Your task to perform on an android device: Search for amazon basics triple a on ebay, select the first entry, add it to the cart, then select checkout. Image 0: 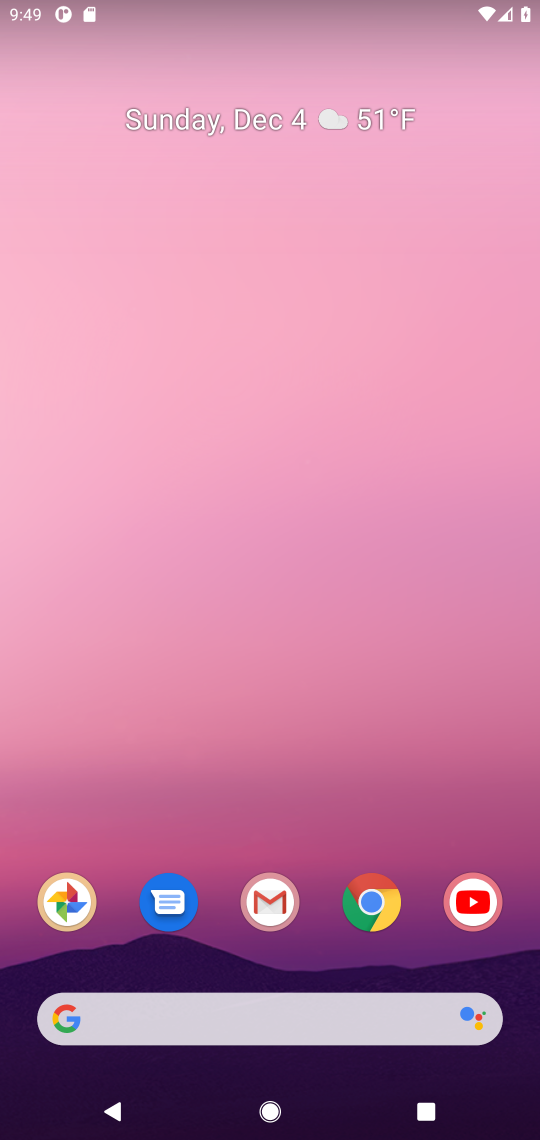
Step 0: click (368, 913)
Your task to perform on an android device: Search for amazon basics triple a on ebay, select the first entry, add it to the cart, then select checkout. Image 1: 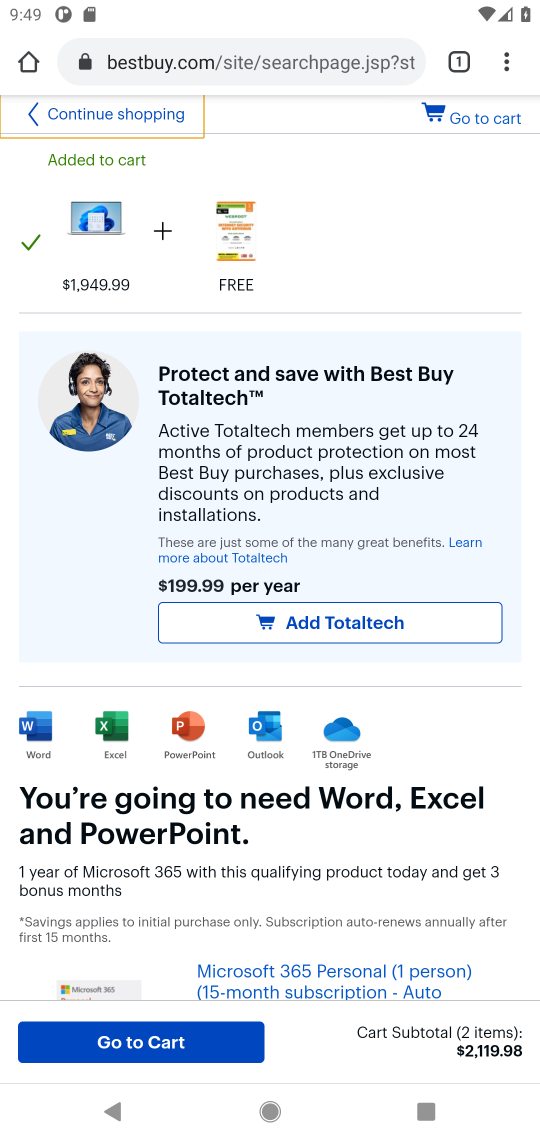
Step 1: click (191, 70)
Your task to perform on an android device: Search for amazon basics triple a on ebay, select the first entry, add it to the cart, then select checkout. Image 2: 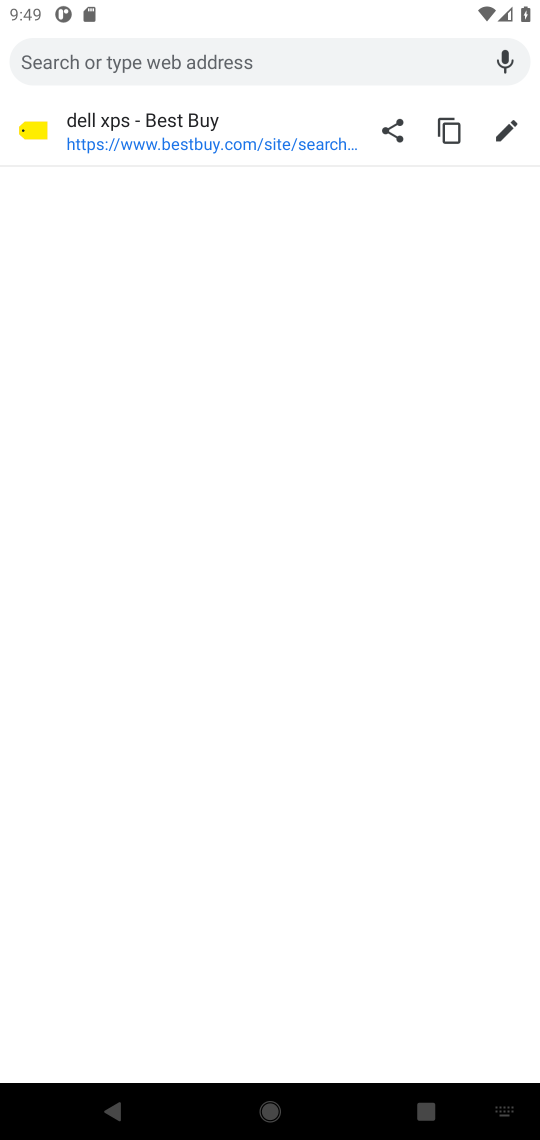
Step 2: type "ebay"
Your task to perform on an android device: Search for amazon basics triple a on ebay, select the first entry, add it to the cart, then select checkout. Image 3: 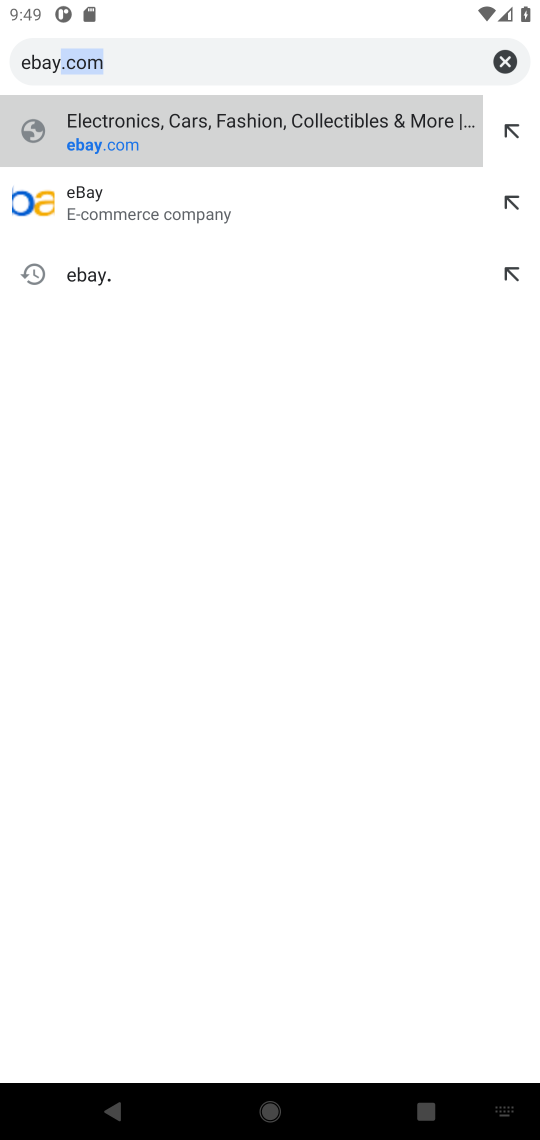
Step 3: click (127, 121)
Your task to perform on an android device: Search for amazon basics triple a on ebay, select the first entry, add it to the cart, then select checkout. Image 4: 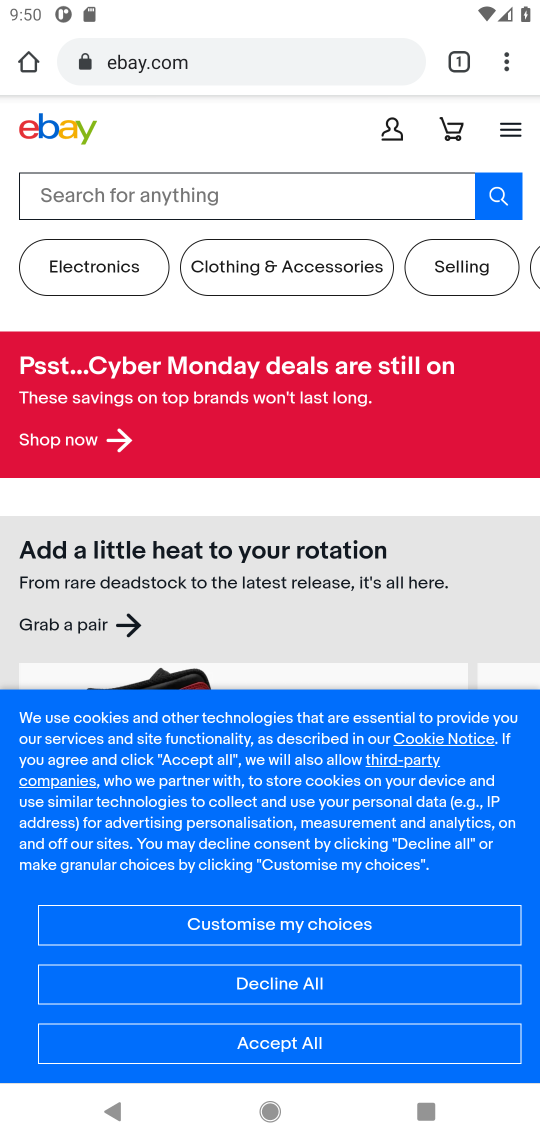
Step 4: click (217, 193)
Your task to perform on an android device: Search for amazon basics triple a on ebay, select the first entry, add it to the cart, then select checkout. Image 5: 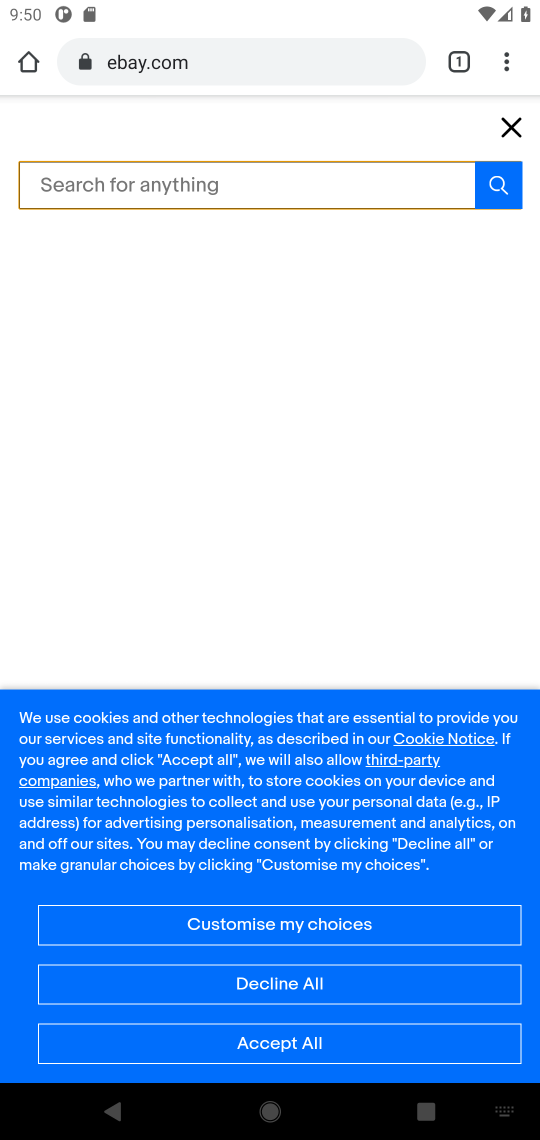
Step 5: type " amazon basics triple a "
Your task to perform on an android device: Search for amazon basics triple a on ebay, select the first entry, add it to the cart, then select checkout. Image 6: 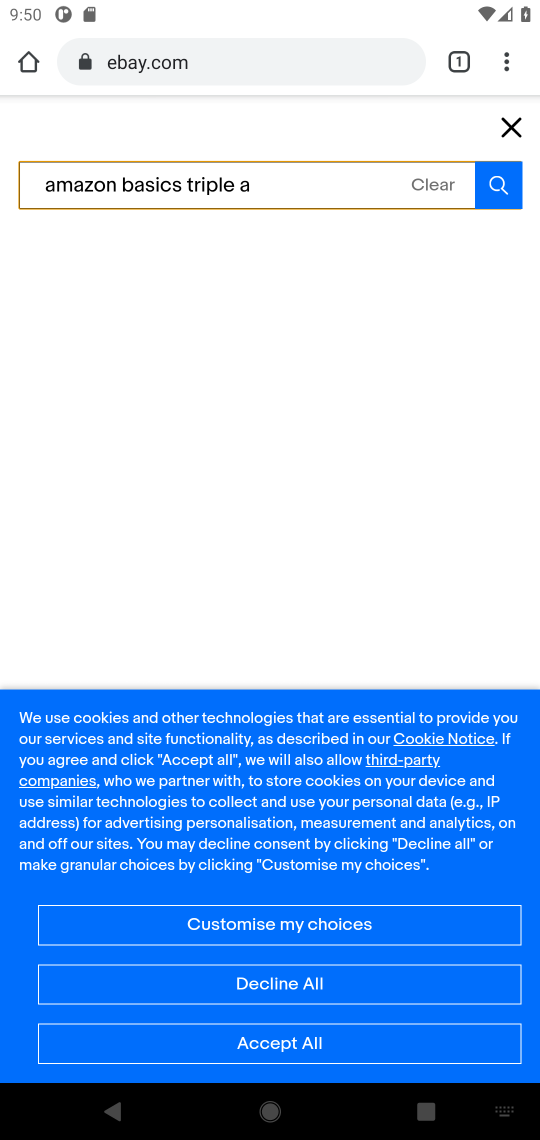
Step 6: click (503, 177)
Your task to perform on an android device: Search for amazon basics triple a on ebay, select the first entry, add it to the cart, then select checkout. Image 7: 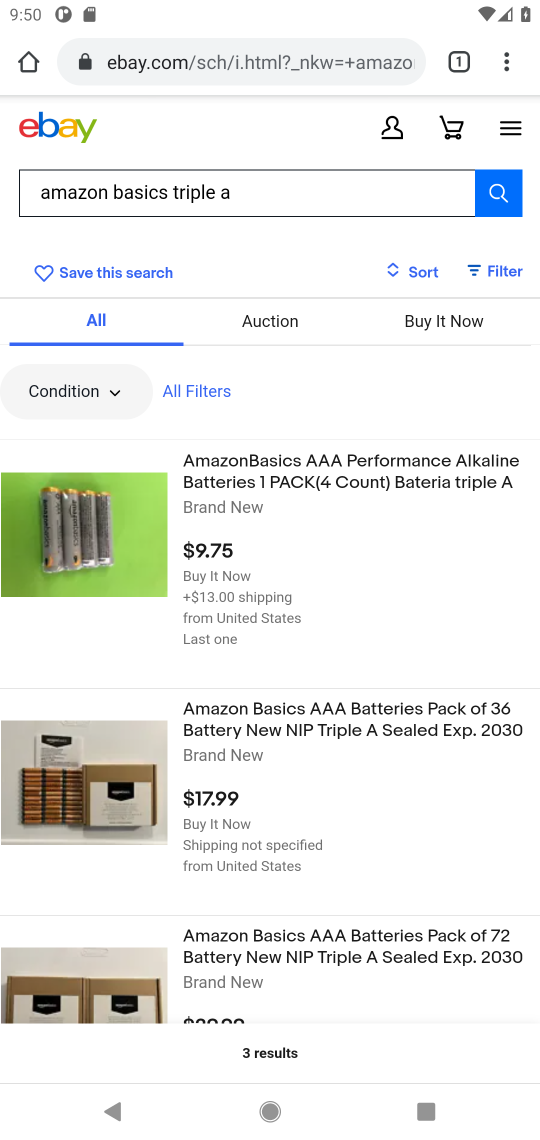
Step 7: click (298, 496)
Your task to perform on an android device: Search for amazon basics triple a on ebay, select the first entry, add it to the cart, then select checkout. Image 8: 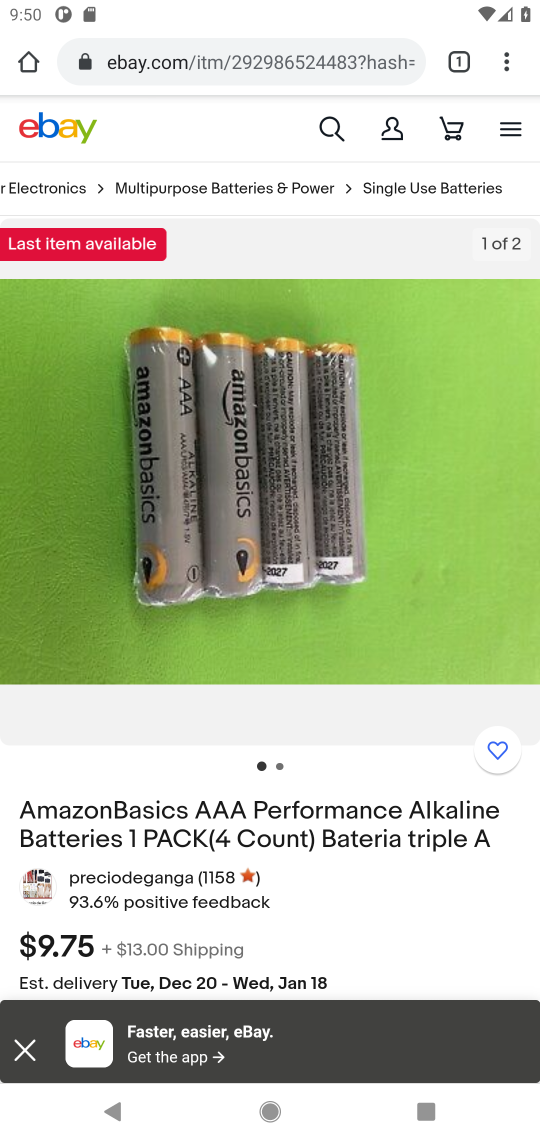
Step 8: drag from (358, 931) to (315, 102)
Your task to perform on an android device: Search for amazon basics triple a on ebay, select the first entry, add it to the cart, then select checkout. Image 9: 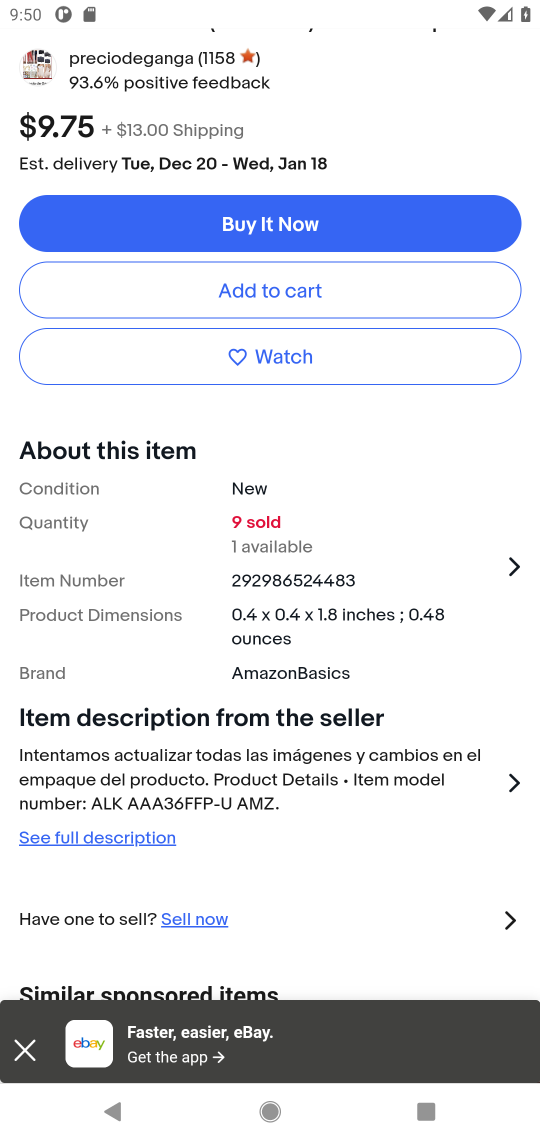
Step 9: click (334, 276)
Your task to perform on an android device: Search for amazon basics triple a on ebay, select the first entry, add it to the cart, then select checkout. Image 10: 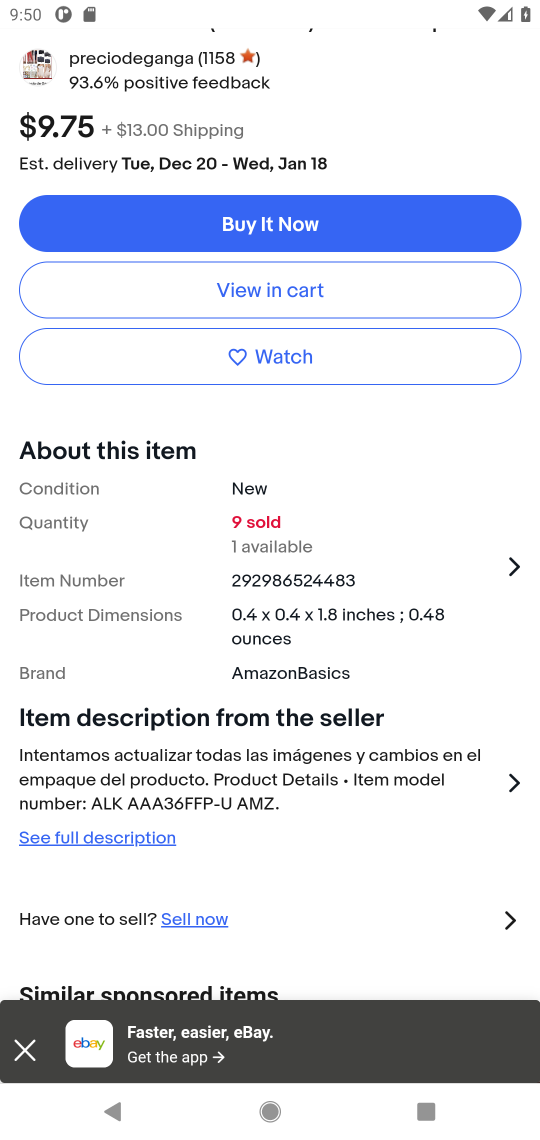
Step 10: click (334, 276)
Your task to perform on an android device: Search for amazon basics triple a on ebay, select the first entry, add it to the cart, then select checkout. Image 11: 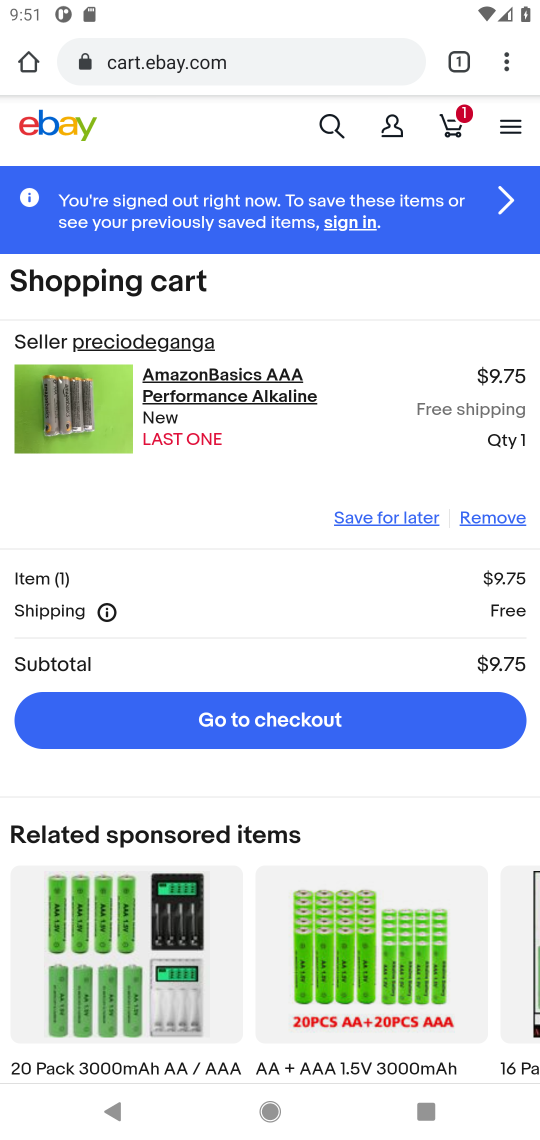
Step 11: click (185, 719)
Your task to perform on an android device: Search for amazon basics triple a on ebay, select the first entry, add it to the cart, then select checkout. Image 12: 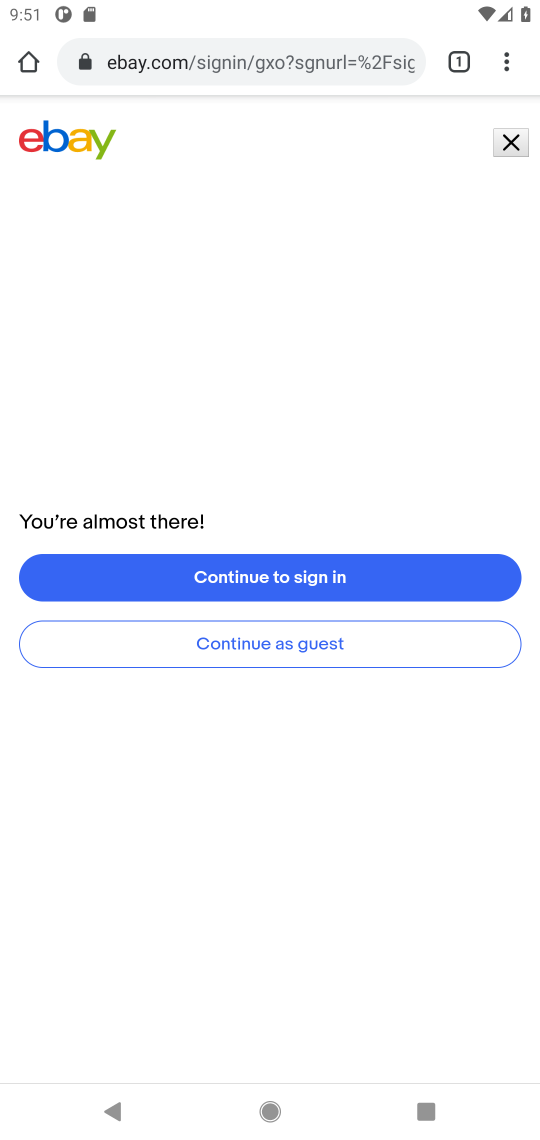
Step 12: task complete